Your task to perform on an android device: What's the weather like in Rio de Janeiro? Image 0: 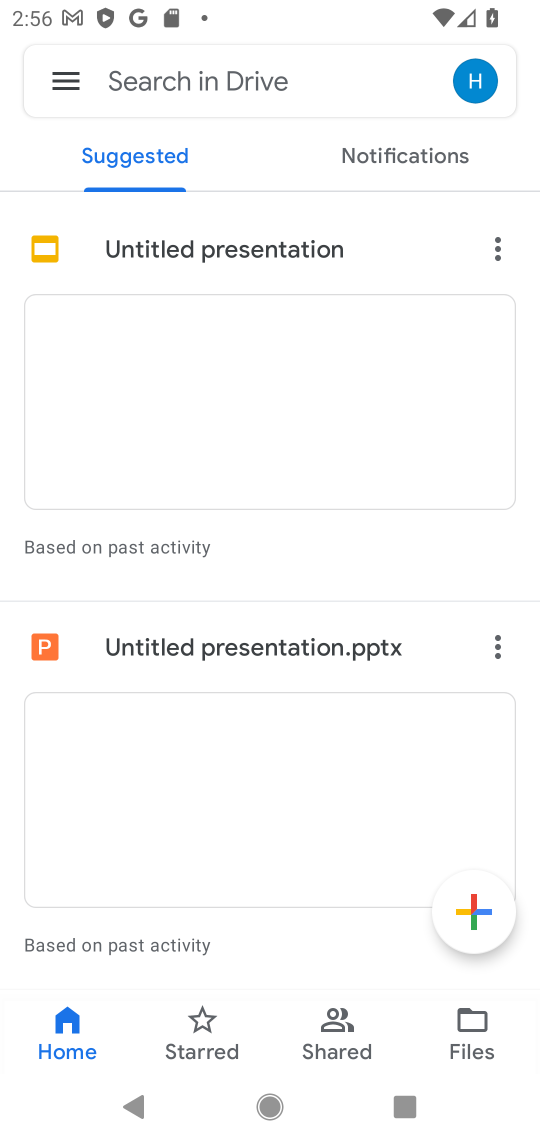
Step 0: press home button
Your task to perform on an android device: What's the weather like in Rio de Janeiro? Image 1: 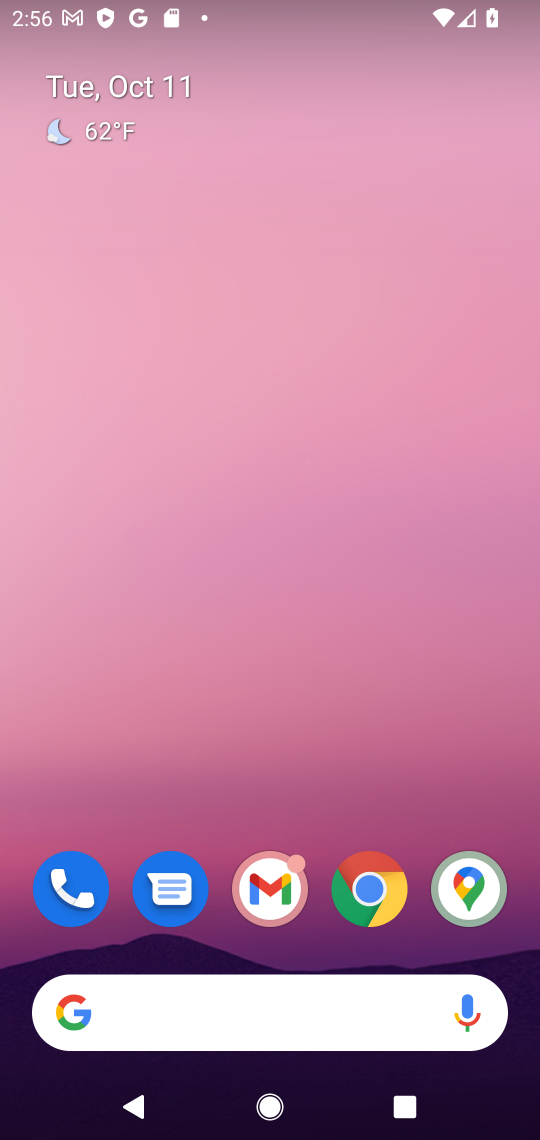
Step 1: drag from (244, 1023) to (225, 473)
Your task to perform on an android device: What's the weather like in Rio de Janeiro? Image 2: 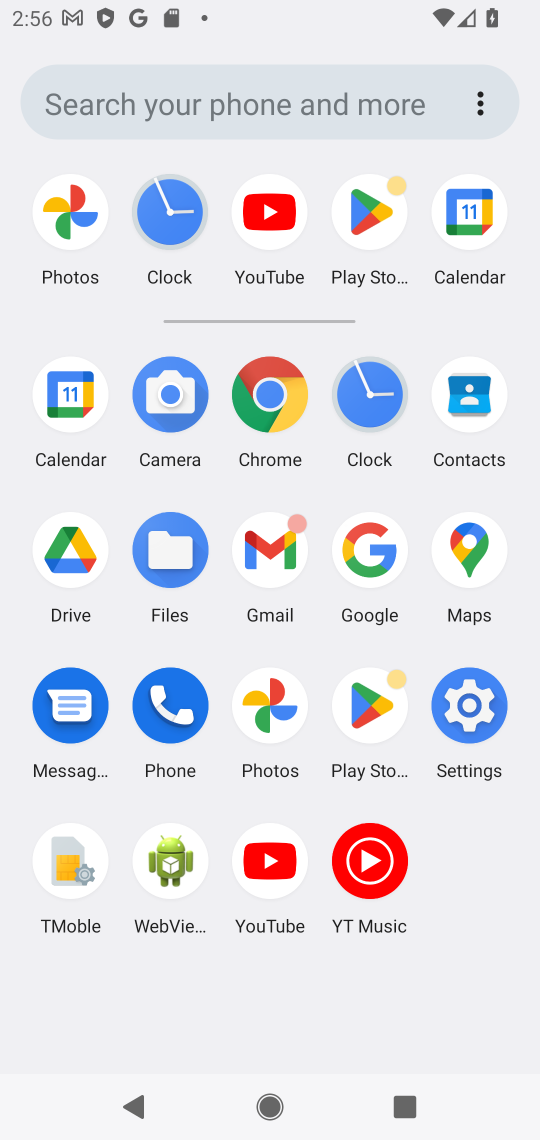
Step 2: click (356, 539)
Your task to perform on an android device: What's the weather like in Rio de Janeiro? Image 3: 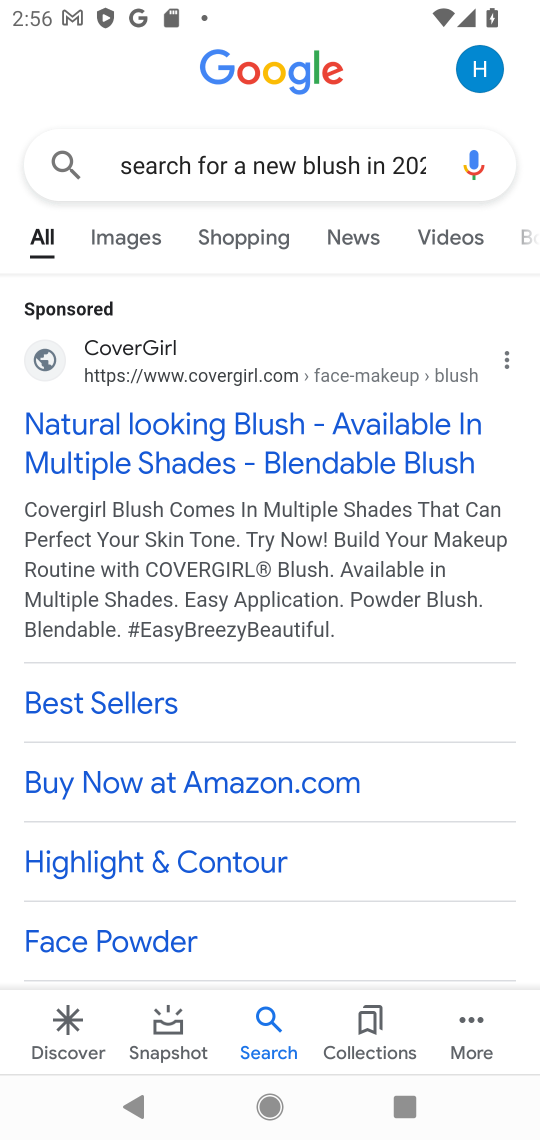
Step 3: click (236, 156)
Your task to perform on an android device: What's the weather like in Rio de Janeiro? Image 4: 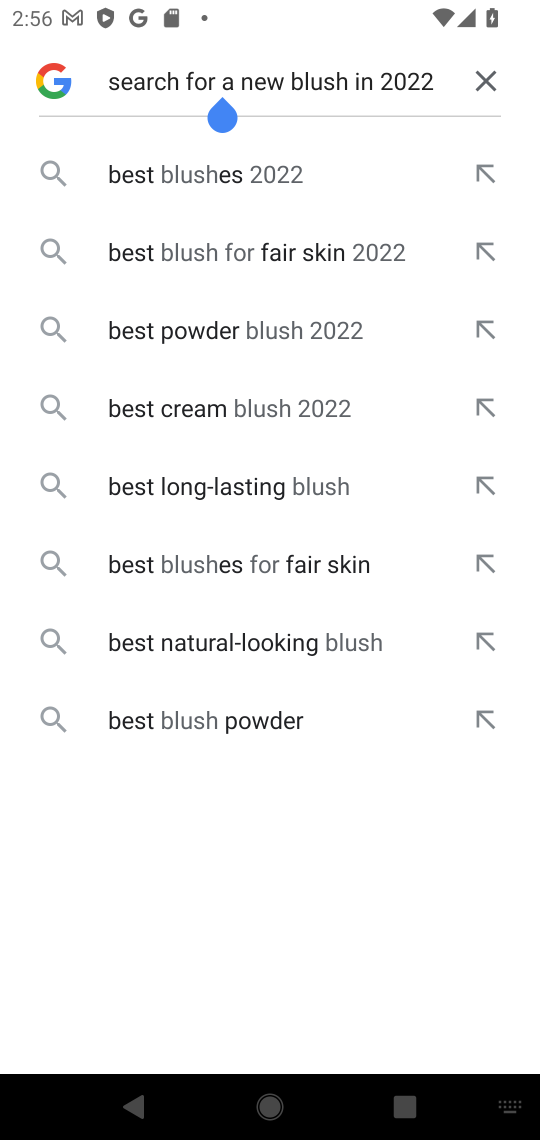
Step 4: click (473, 76)
Your task to perform on an android device: What's the weather like in Rio de Janeiro? Image 5: 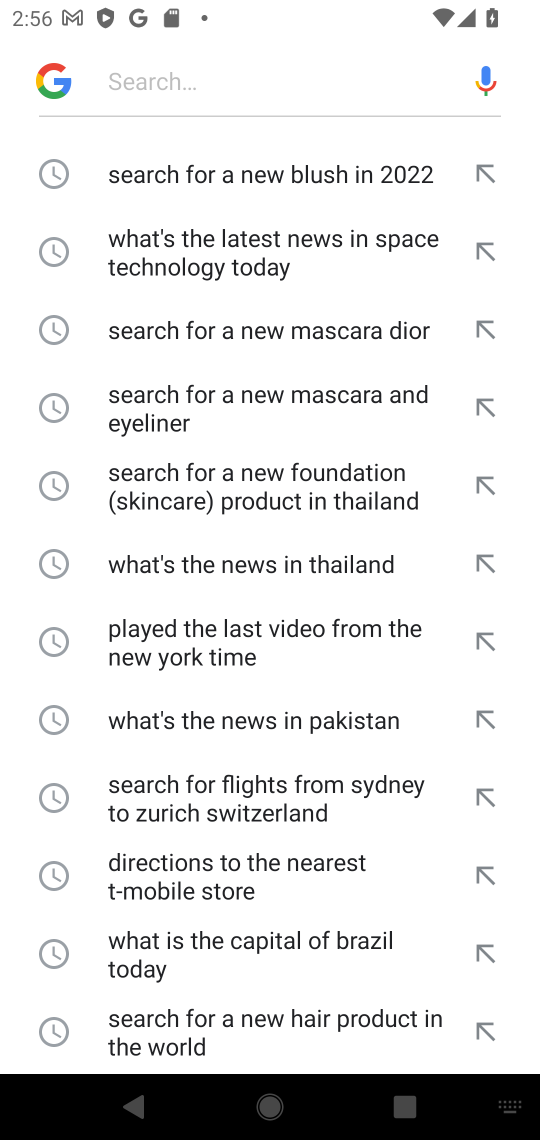
Step 5: click (317, 73)
Your task to perform on an android device: What's the weather like in Rio de Janeiro? Image 6: 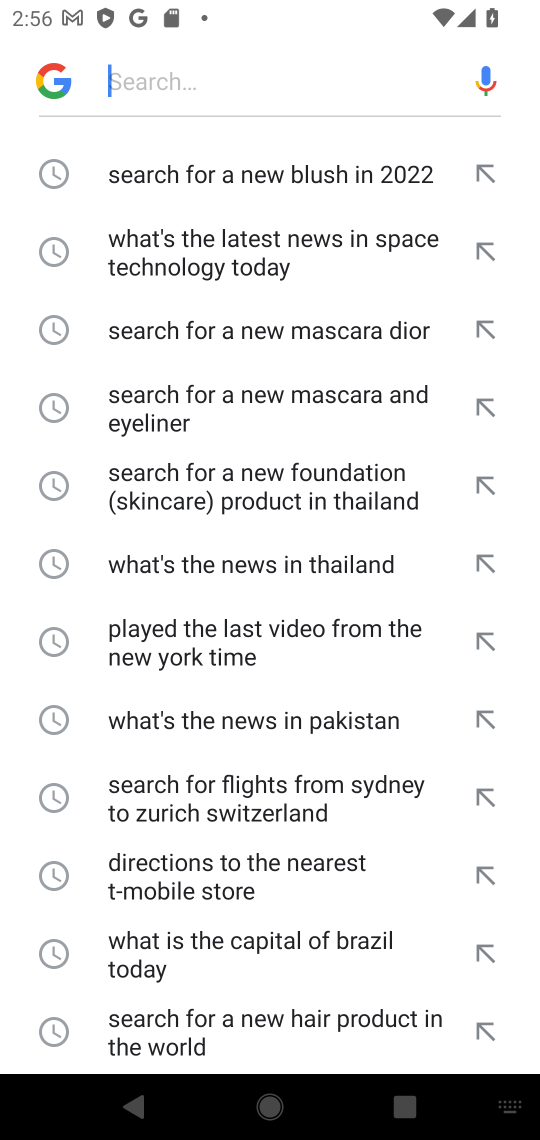
Step 6: type "What's the weather like in Rio de Janeiro? "
Your task to perform on an android device: What's the weather like in Rio de Janeiro? Image 7: 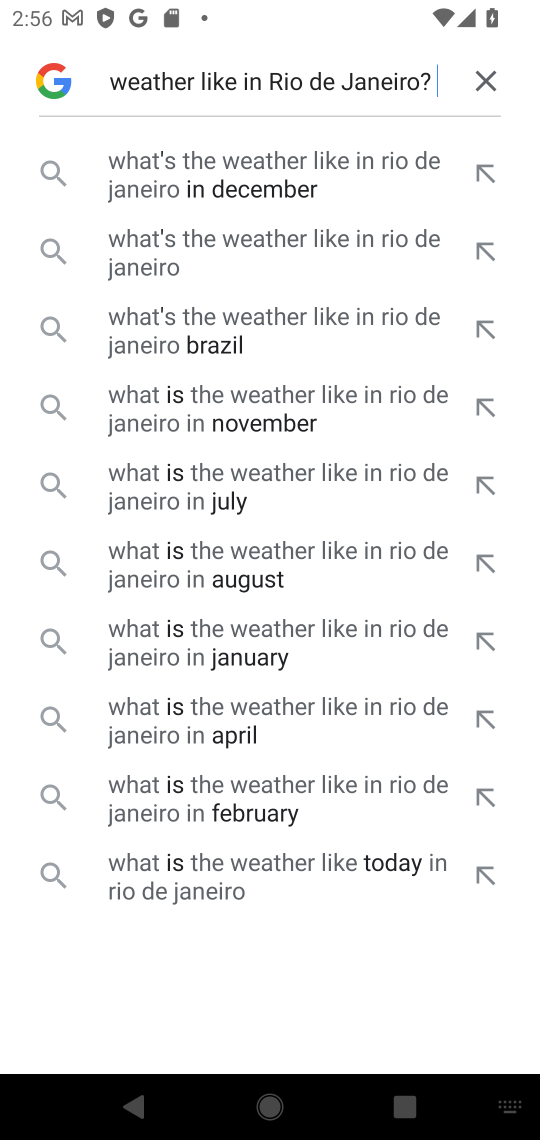
Step 7: click (231, 185)
Your task to perform on an android device: What's the weather like in Rio de Janeiro? Image 8: 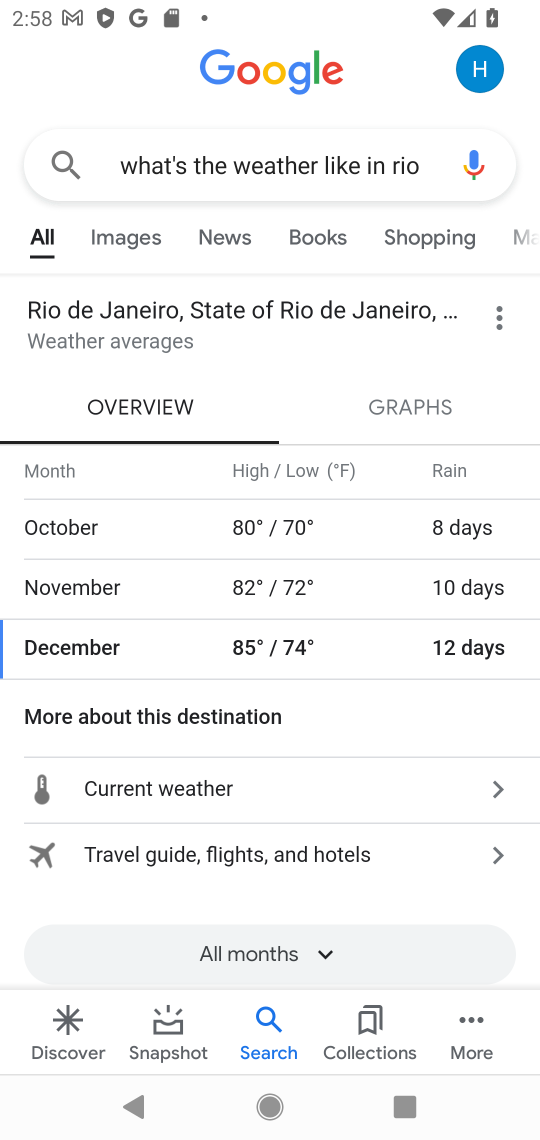
Step 8: task complete